Your task to perform on an android device: refresh tabs in the chrome app Image 0: 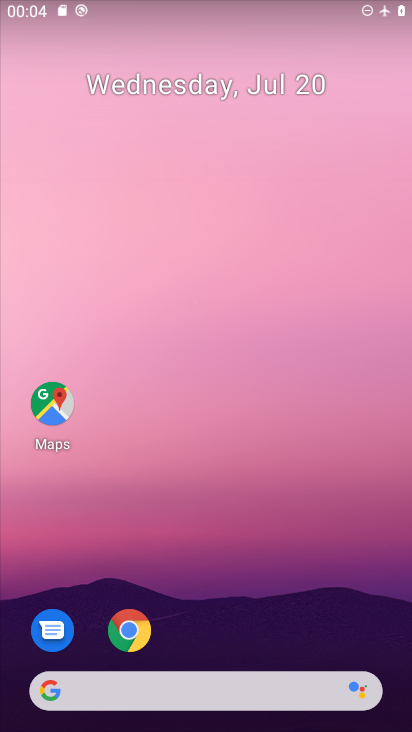
Step 0: click (133, 645)
Your task to perform on an android device: refresh tabs in the chrome app Image 1: 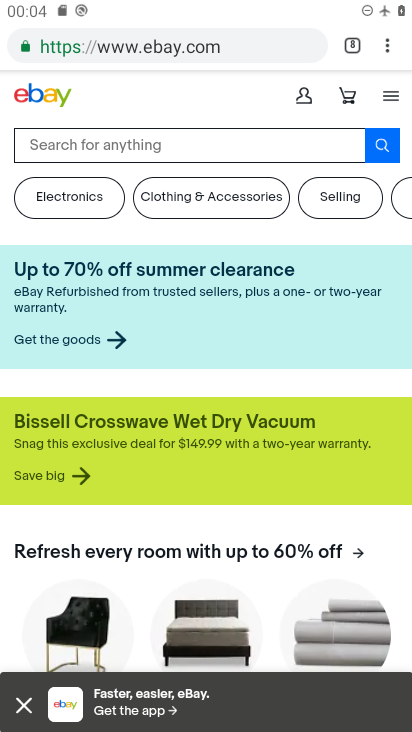
Step 1: click (383, 45)
Your task to perform on an android device: refresh tabs in the chrome app Image 2: 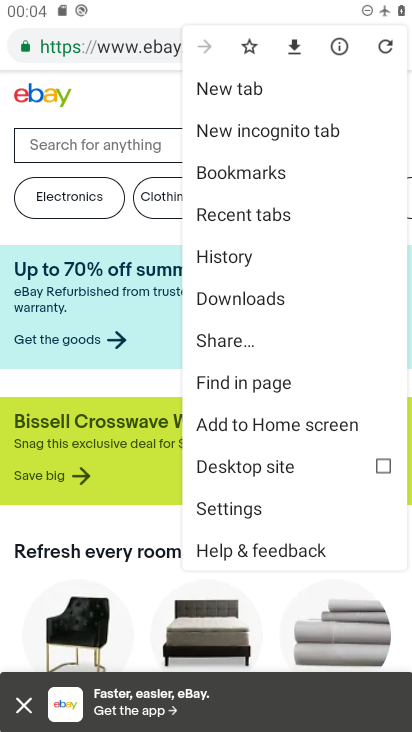
Step 2: click (378, 53)
Your task to perform on an android device: refresh tabs in the chrome app Image 3: 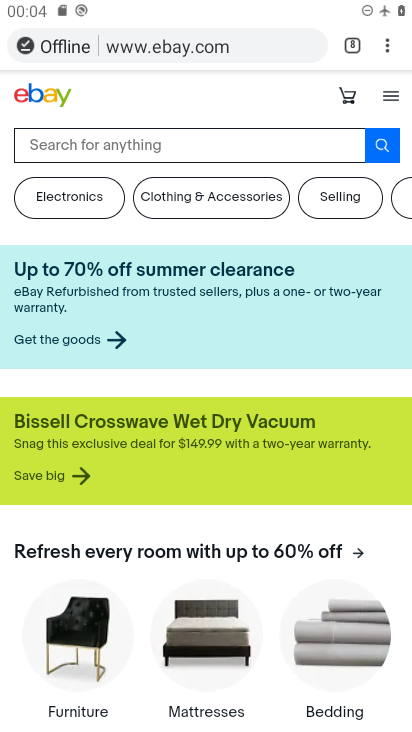
Step 3: task complete